Your task to perform on an android device: add a label to a message in the gmail app Image 0: 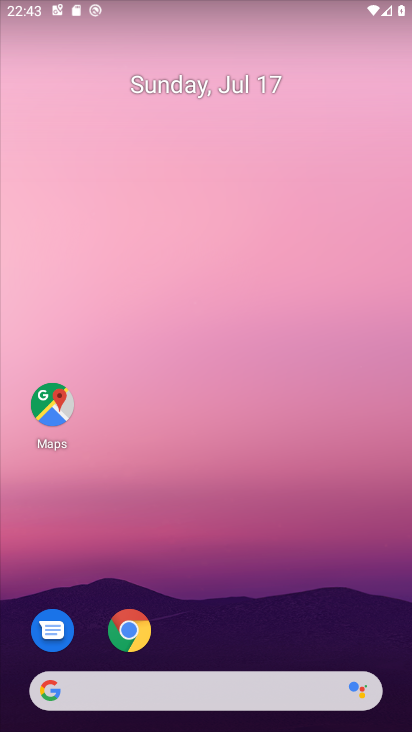
Step 0: drag from (181, 574) to (185, 173)
Your task to perform on an android device: add a label to a message in the gmail app Image 1: 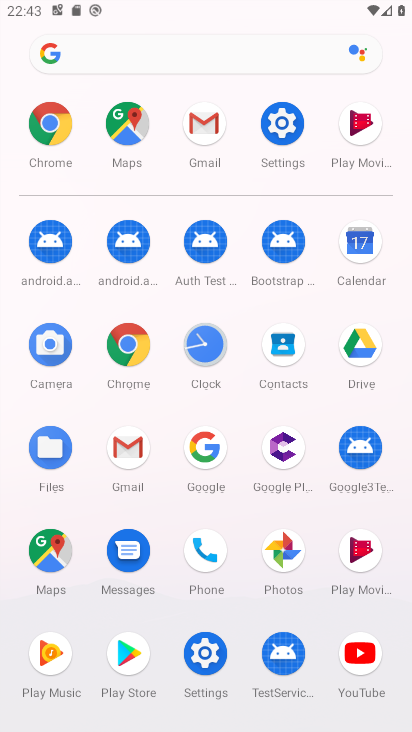
Step 1: click (133, 445)
Your task to perform on an android device: add a label to a message in the gmail app Image 2: 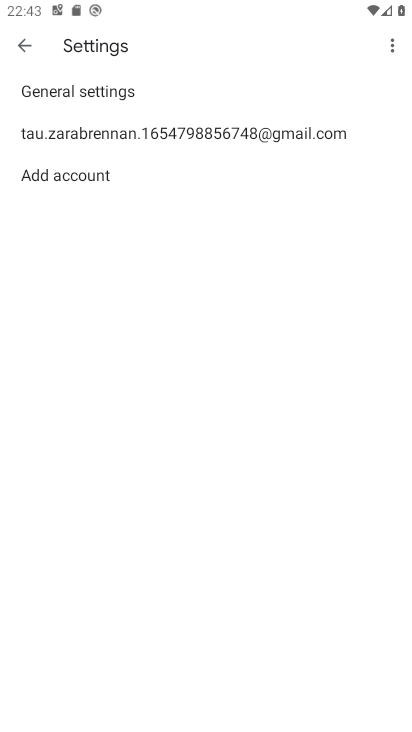
Step 2: click (29, 52)
Your task to perform on an android device: add a label to a message in the gmail app Image 3: 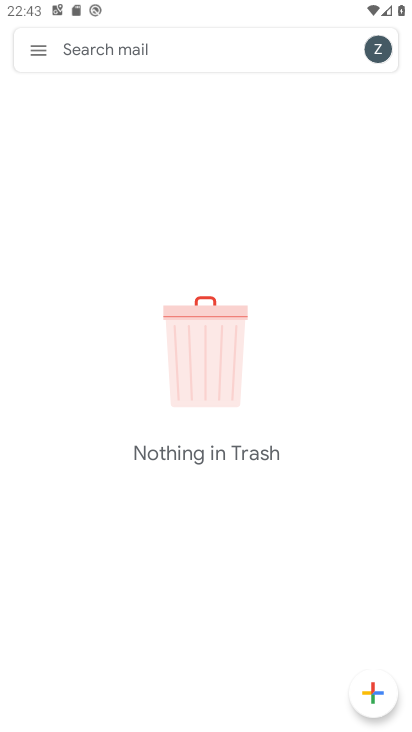
Step 3: click (32, 51)
Your task to perform on an android device: add a label to a message in the gmail app Image 4: 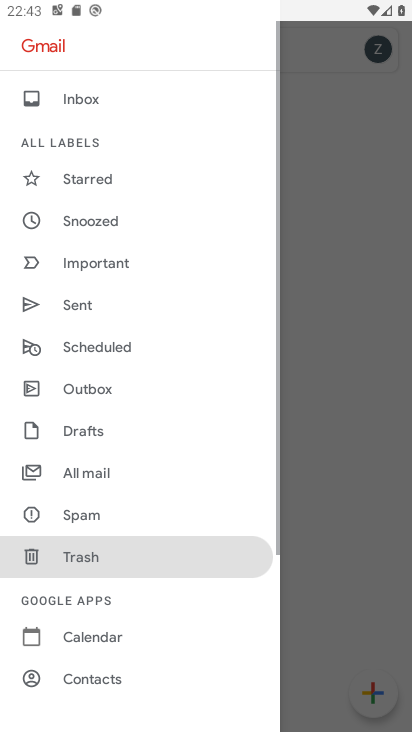
Step 4: drag from (104, 157) to (117, 523)
Your task to perform on an android device: add a label to a message in the gmail app Image 5: 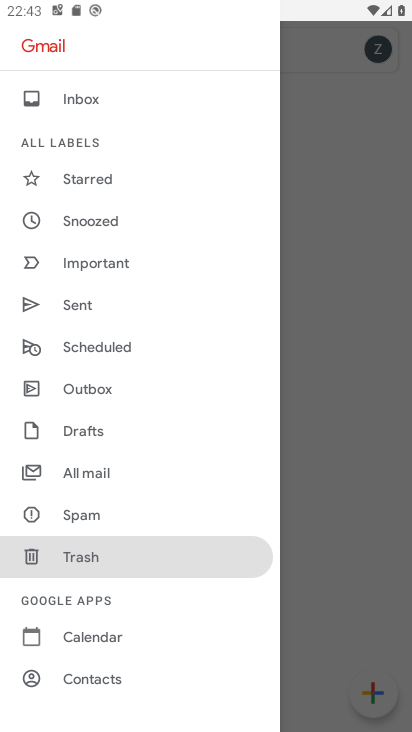
Step 5: click (84, 94)
Your task to perform on an android device: add a label to a message in the gmail app Image 6: 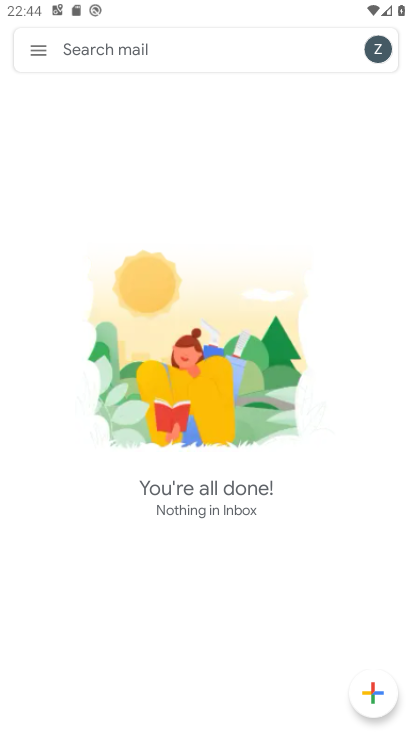
Step 6: task complete